Your task to perform on an android device: turn on translation in the chrome app Image 0: 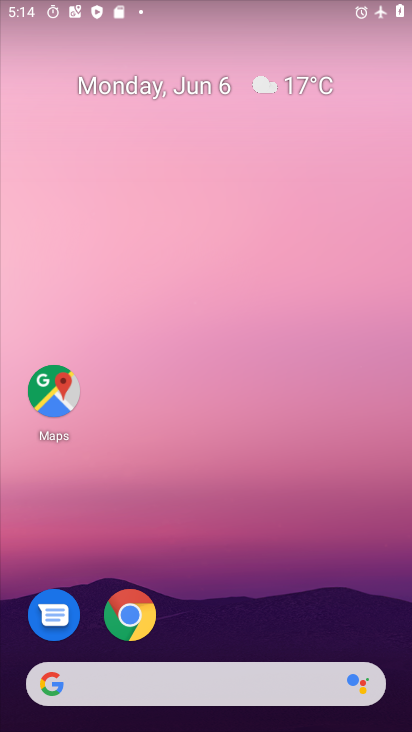
Step 0: drag from (257, 601) to (203, 22)
Your task to perform on an android device: turn on translation in the chrome app Image 1: 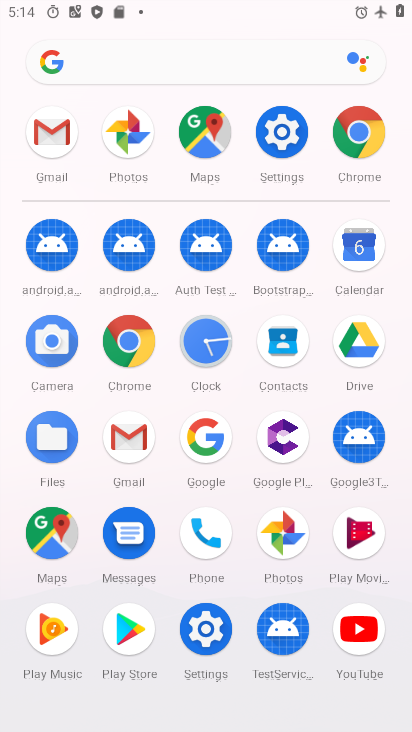
Step 1: drag from (16, 539) to (15, 241)
Your task to perform on an android device: turn on translation in the chrome app Image 2: 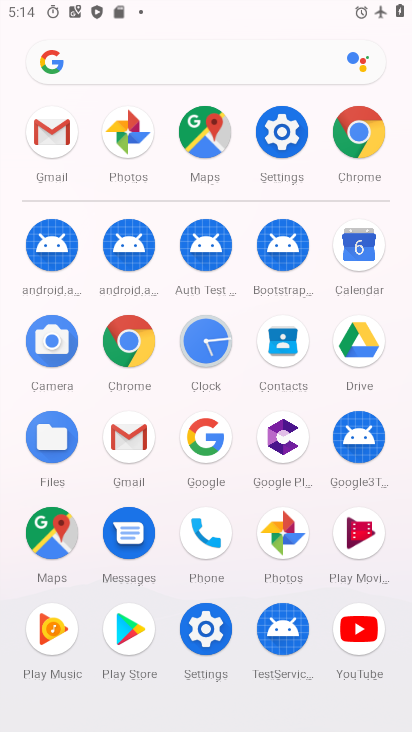
Step 2: click (362, 135)
Your task to perform on an android device: turn on translation in the chrome app Image 3: 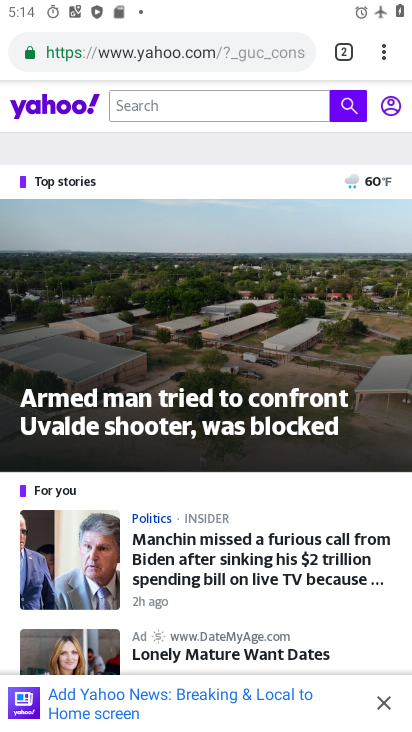
Step 3: drag from (380, 53) to (245, 572)
Your task to perform on an android device: turn on translation in the chrome app Image 4: 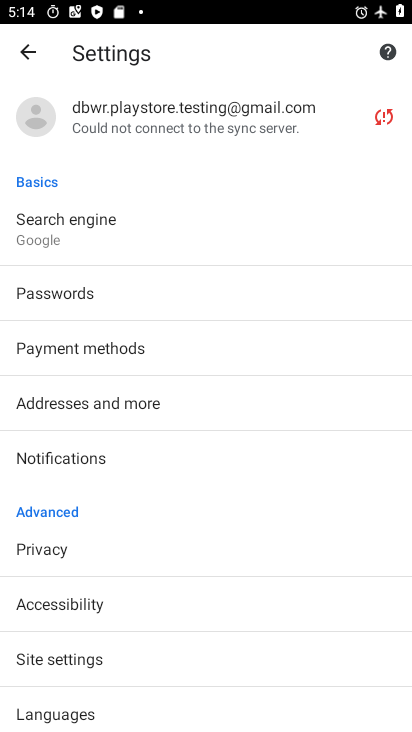
Step 4: drag from (157, 627) to (202, 308)
Your task to perform on an android device: turn on translation in the chrome app Image 5: 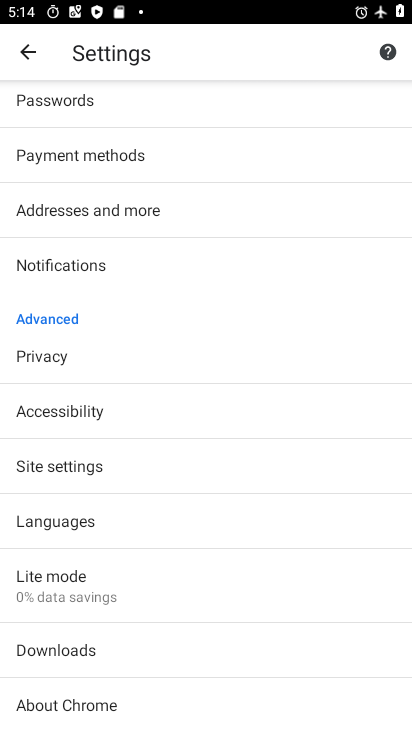
Step 5: click (111, 525)
Your task to perform on an android device: turn on translation in the chrome app Image 6: 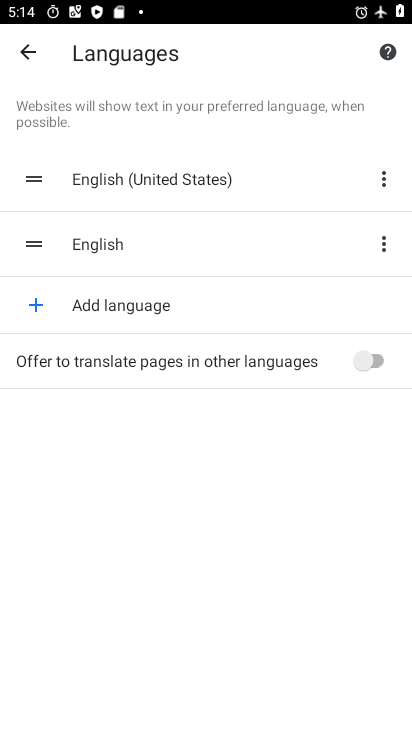
Step 6: click (372, 353)
Your task to perform on an android device: turn on translation in the chrome app Image 7: 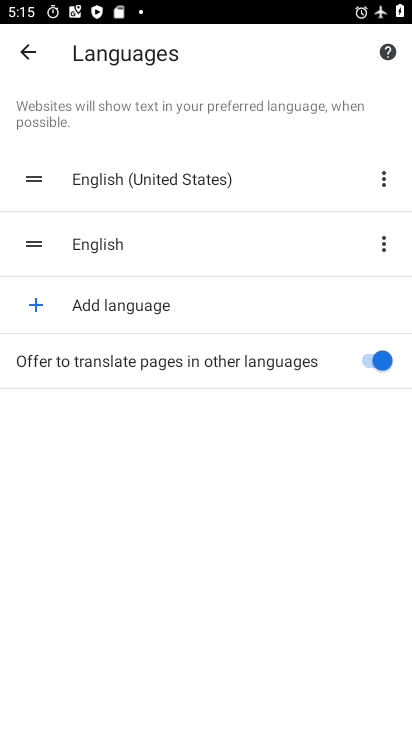
Step 7: task complete